Your task to perform on an android device: turn on the 24-hour format for clock Image 0: 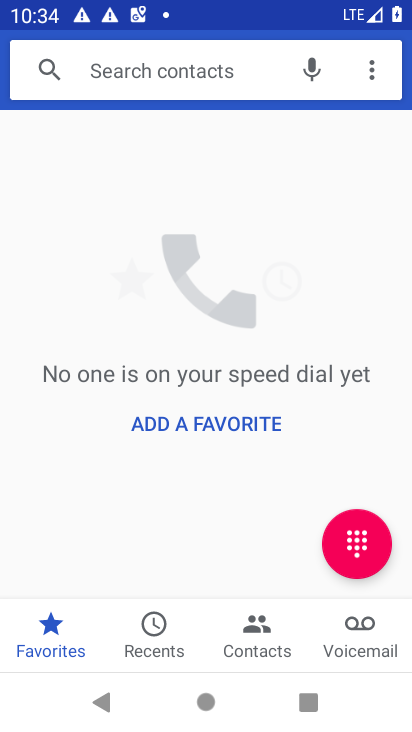
Step 0: press home button
Your task to perform on an android device: turn on the 24-hour format for clock Image 1: 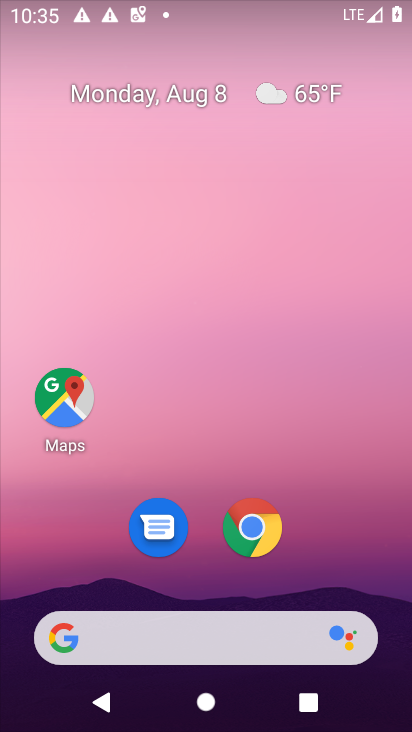
Step 1: drag from (383, 657) to (360, 195)
Your task to perform on an android device: turn on the 24-hour format for clock Image 2: 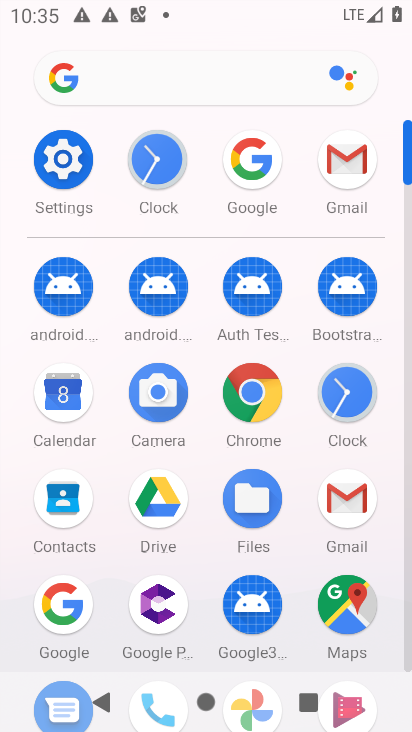
Step 2: click (169, 162)
Your task to perform on an android device: turn on the 24-hour format for clock Image 3: 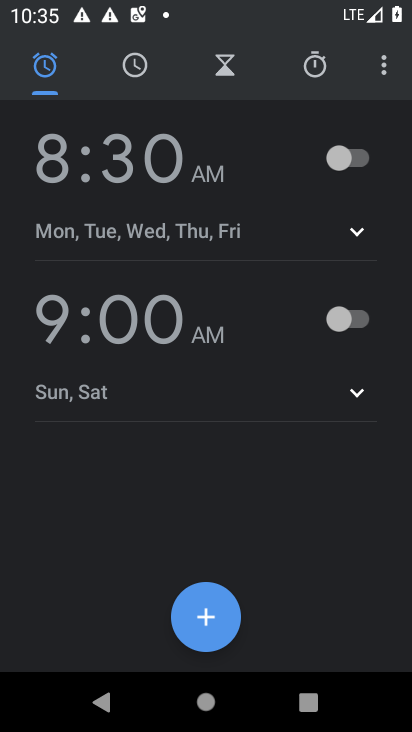
Step 3: click (385, 62)
Your task to perform on an android device: turn on the 24-hour format for clock Image 4: 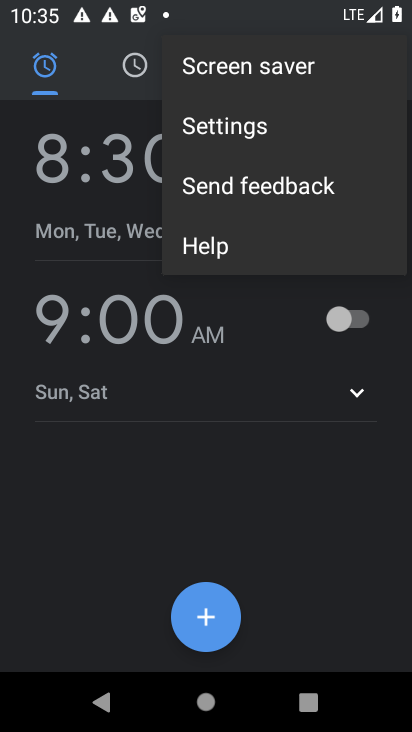
Step 4: click (233, 132)
Your task to perform on an android device: turn on the 24-hour format for clock Image 5: 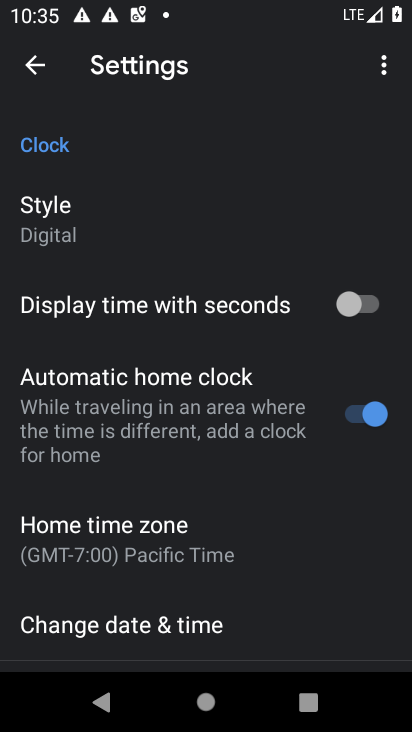
Step 5: click (108, 622)
Your task to perform on an android device: turn on the 24-hour format for clock Image 6: 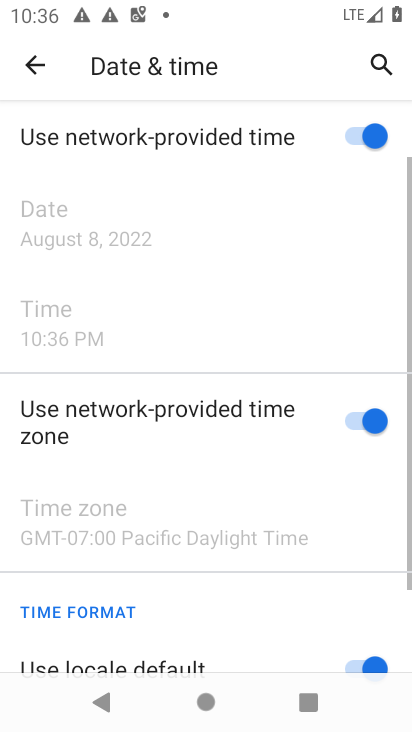
Step 6: click (101, 608)
Your task to perform on an android device: turn on the 24-hour format for clock Image 7: 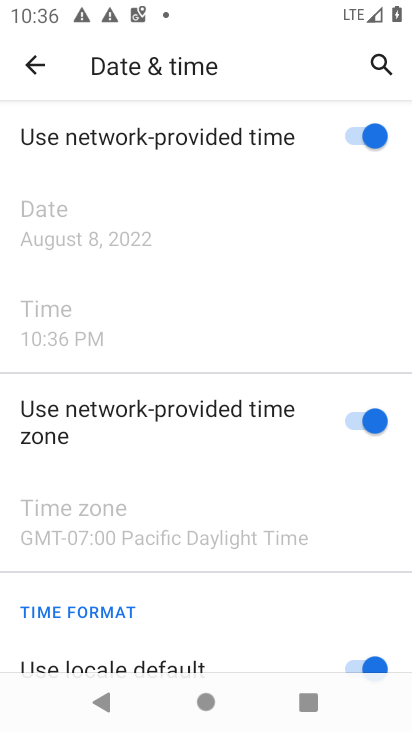
Step 7: drag from (271, 571) to (280, 345)
Your task to perform on an android device: turn on the 24-hour format for clock Image 8: 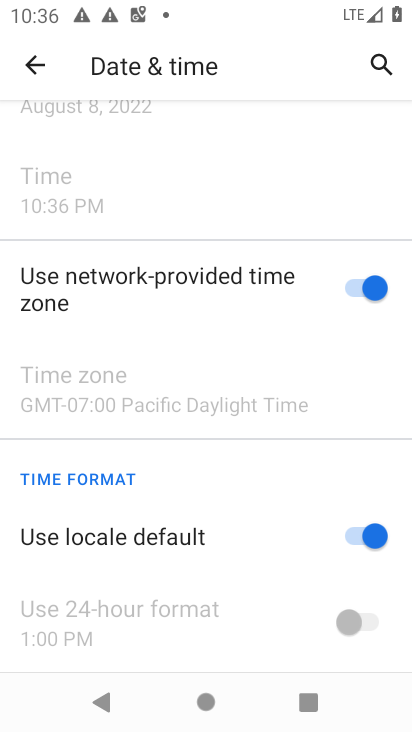
Step 8: click (358, 534)
Your task to perform on an android device: turn on the 24-hour format for clock Image 9: 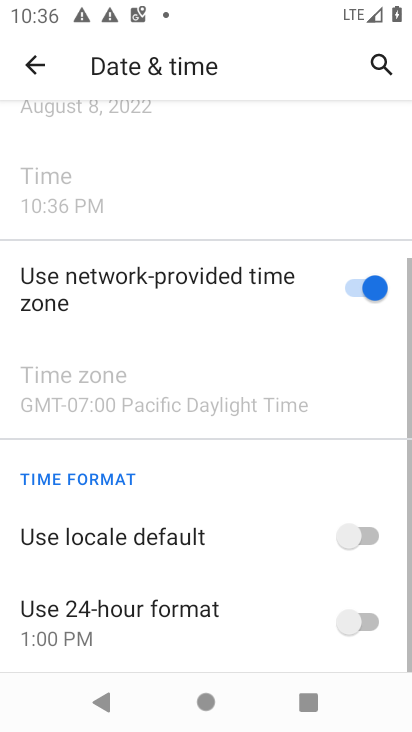
Step 9: click (364, 622)
Your task to perform on an android device: turn on the 24-hour format for clock Image 10: 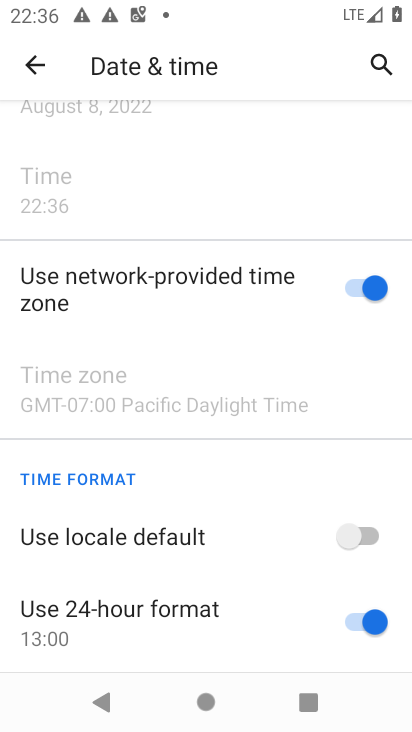
Step 10: task complete